Your task to perform on an android device: turn on the 12-hour format for clock Image 0: 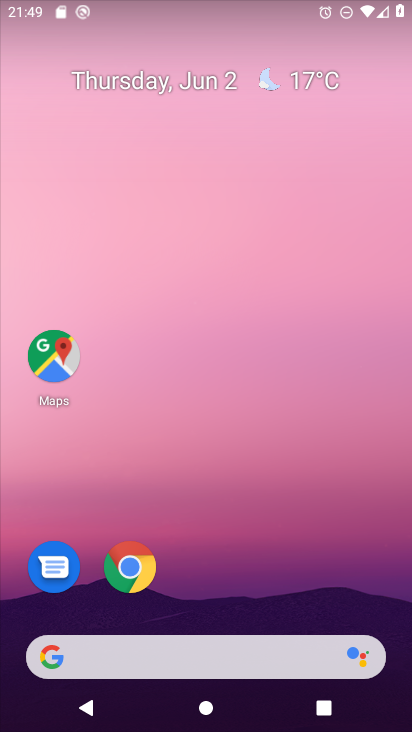
Step 0: drag from (226, 580) to (276, 189)
Your task to perform on an android device: turn on the 12-hour format for clock Image 1: 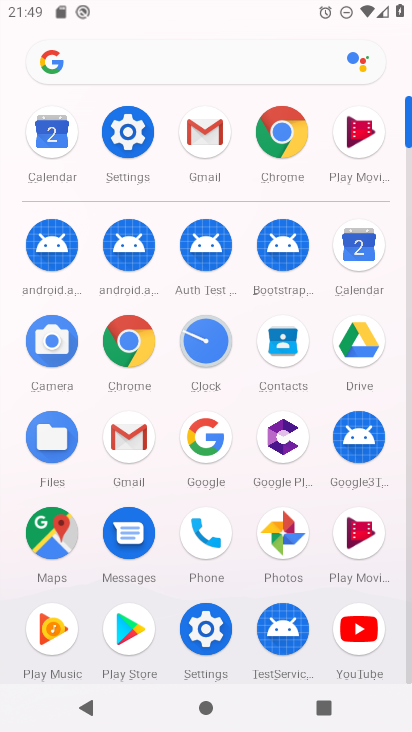
Step 1: click (205, 650)
Your task to perform on an android device: turn on the 12-hour format for clock Image 2: 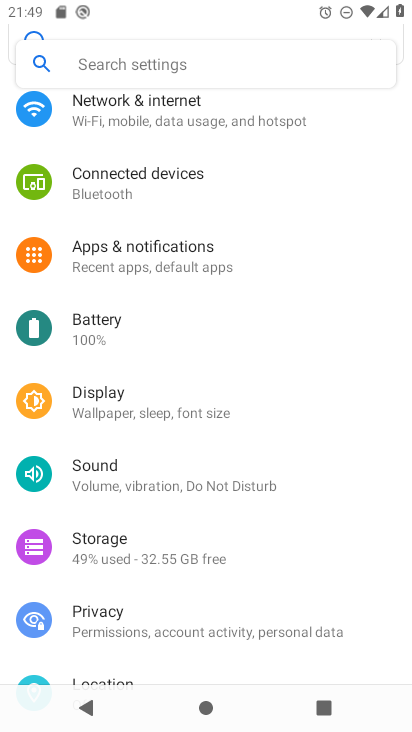
Step 2: drag from (148, 611) to (209, 210)
Your task to perform on an android device: turn on the 12-hour format for clock Image 3: 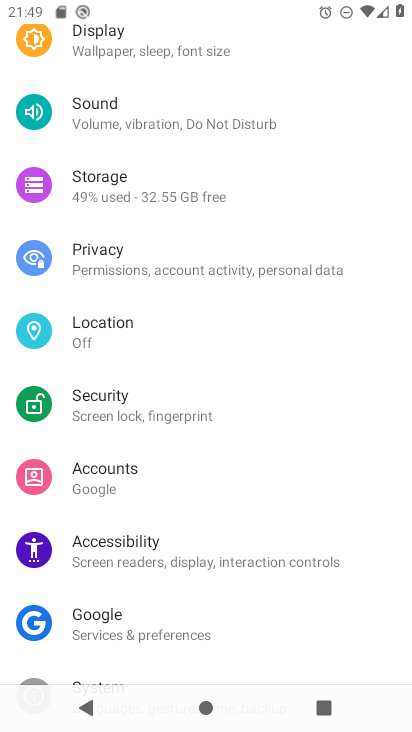
Step 3: drag from (219, 543) to (260, 119)
Your task to perform on an android device: turn on the 12-hour format for clock Image 4: 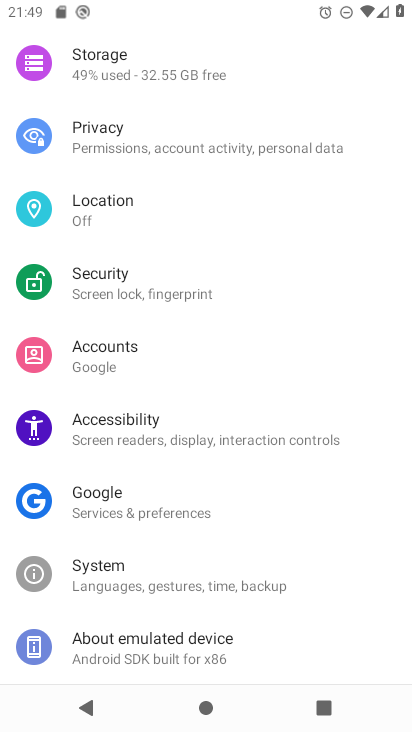
Step 4: click (138, 594)
Your task to perform on an android device: turn on the 12-hour format for clock Image 5: 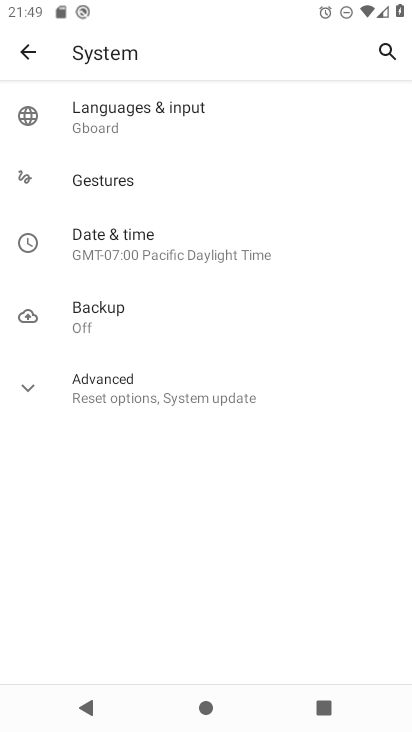
Step 5: click (141, 258)
Your task to perform on an android device: turn on the 12-hour format for clock Image 6: 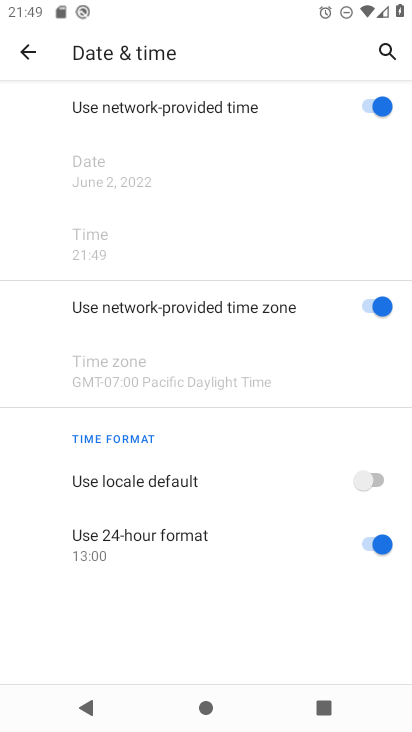
Step 6: click (385, 482)
Your task to perform on an android device: turn on the 12-hour format for clock Image 7: 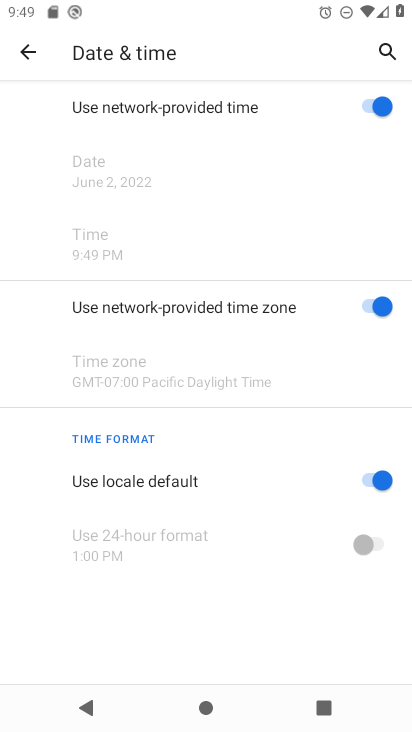
Step 7: task complete